Your task to perform on an android device: Open sound settings Image 0: 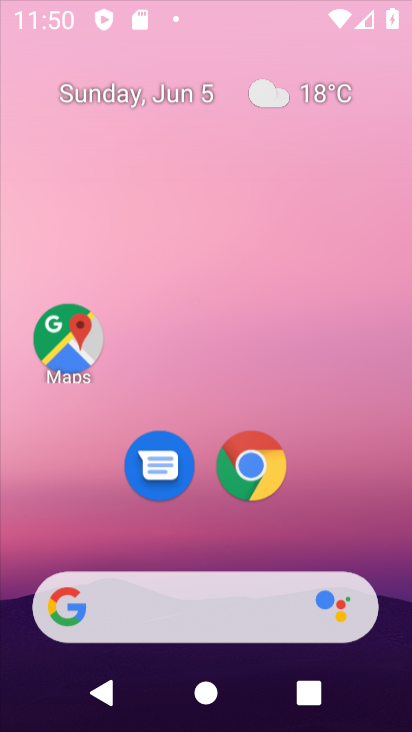
Step 0: press back button
Your task to perform on an android device: Open sound settings Image 1: 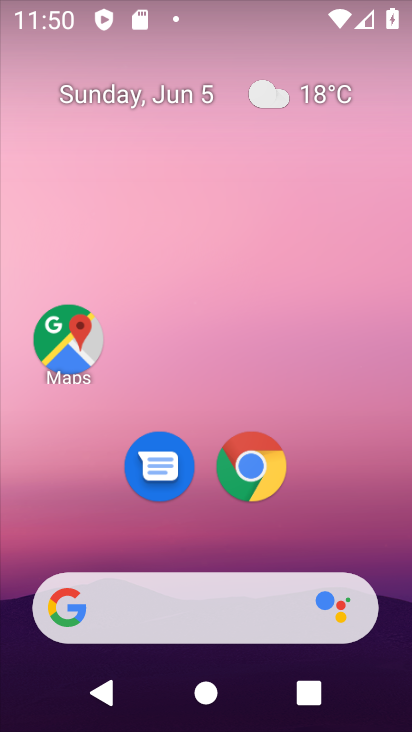
Step 1: press home button
Your task to perform on an android device: Open sound settings Image 2: 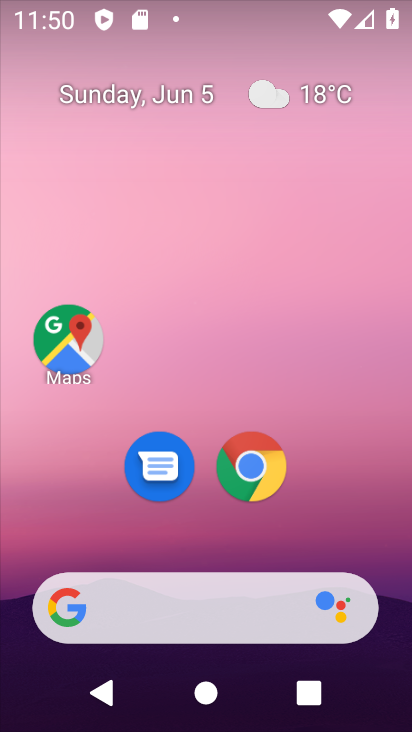
Step 2: drag from (310, 552) to (293, 38)
Your task to perform on an android device: Open sound settings Image 3: 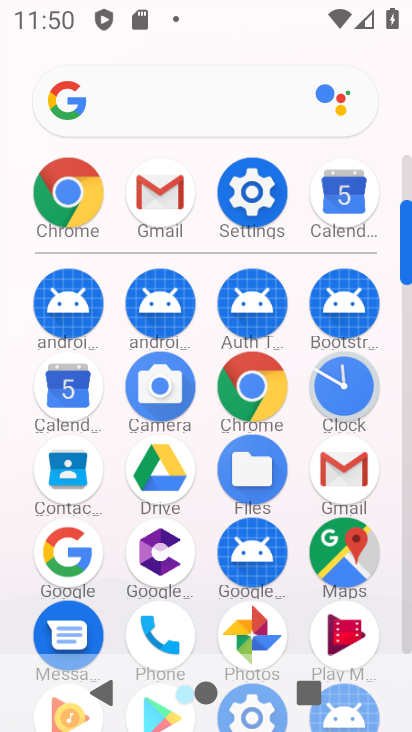
Step 3: click (250, 191)
Your task to perform on an android device: Open sound settings Image 4: 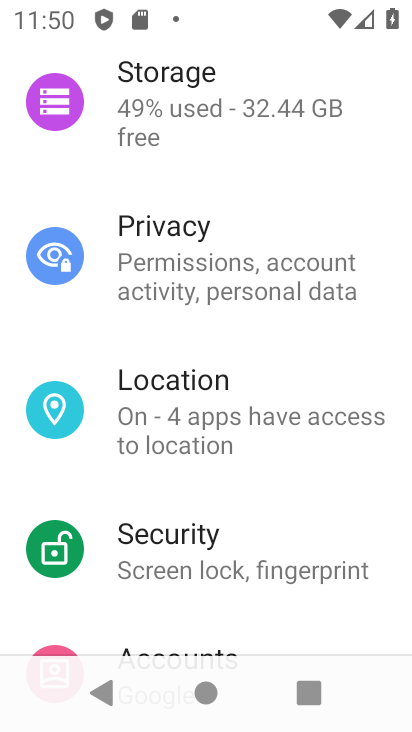
Step 4: drag from (206, 241) to (229, 540)
Your task to perform on an android device: Open sound settings Image 5: 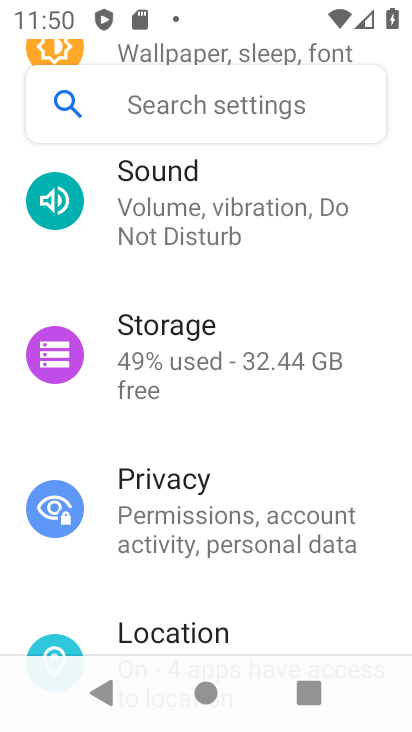
Step 5: drag from (214, 221) to (294, 612)
Your task to perform on an android device: Open sound settings Image 6: 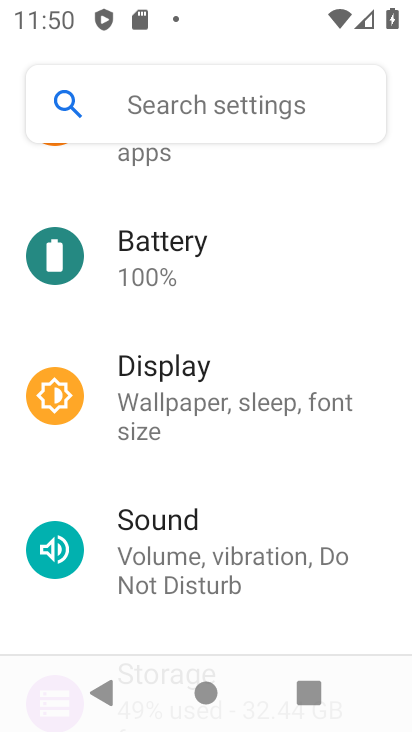
Step 6: drag from (289, 308) to (303, 608)
Your task to perform on an android device: Open sound settings Image 7: 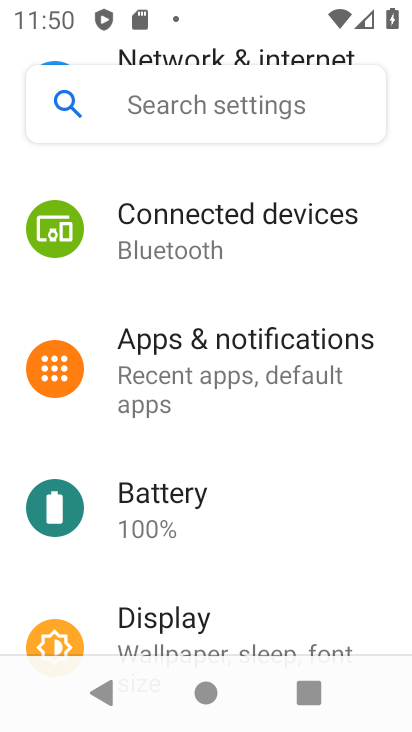
Step 7: drag from (275, 304) to (286, 590)
Your task to perform on an android device: Open sound settings Image 8: 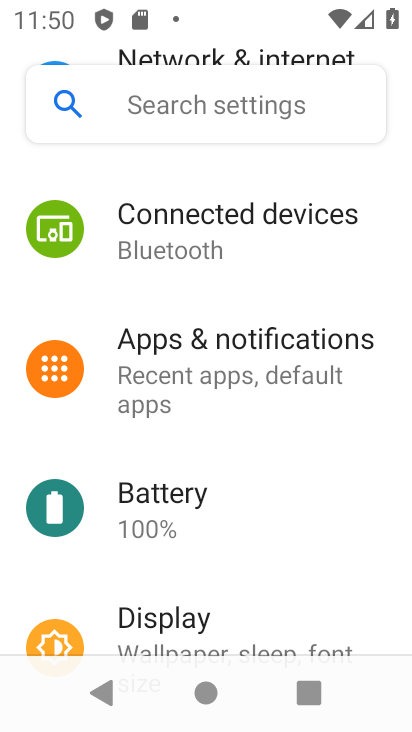
Step 8: drag from (268, 258) to (234, 597)
Your task to perform on an android device: Open sound settings Image 9: 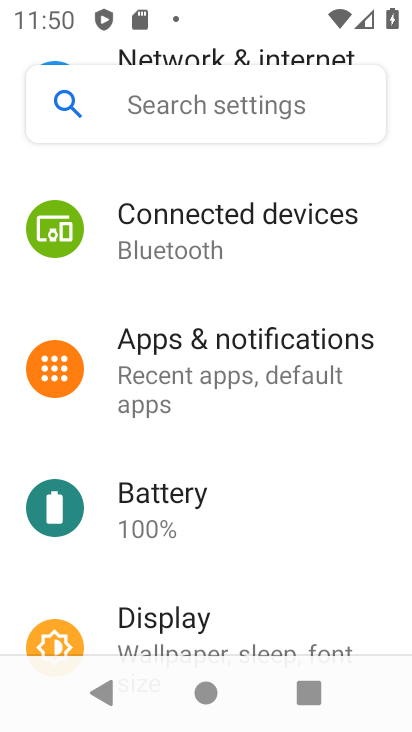
Step 9: drag from (231, 560) to (230, 200)
Your task to perform on an android device: Open sound settings Image 10: 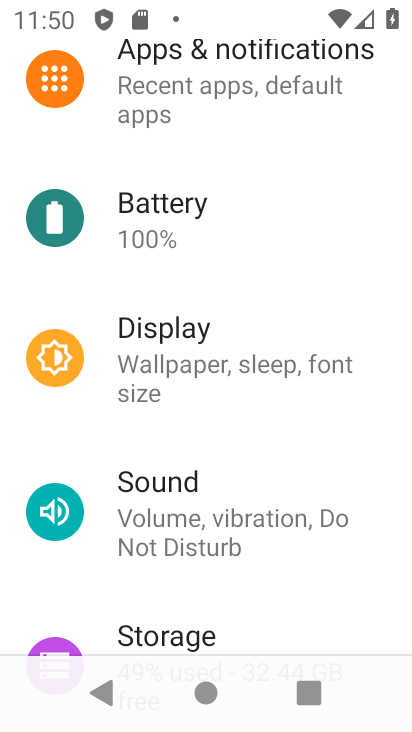
Step 10: drag from (226, 557) to (253, 255)
Your task to perform on an android device: Open sound settings Image 11: 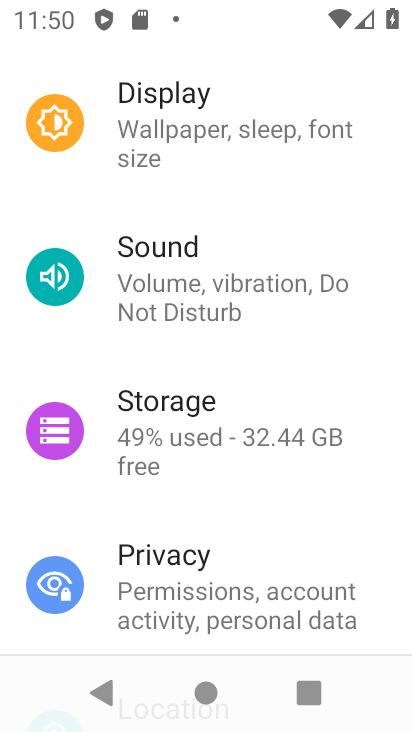
Step 11: click (240, 236)
Your task to perform on an android device: Open sound settings Image 12: 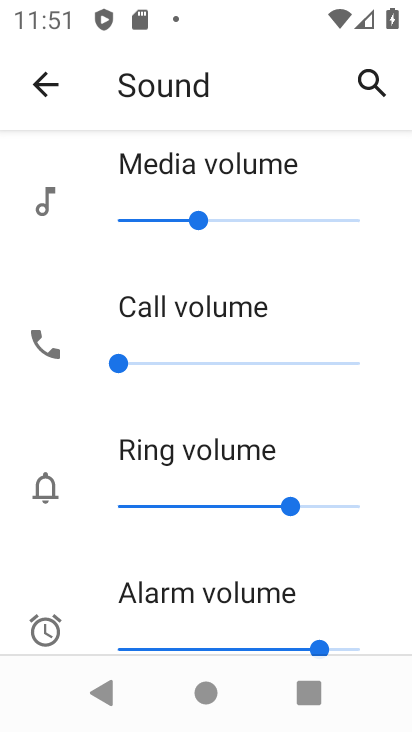
Step 12: task complete